Your task to perform on an android device: Do I have any events this weekend? Image 0: 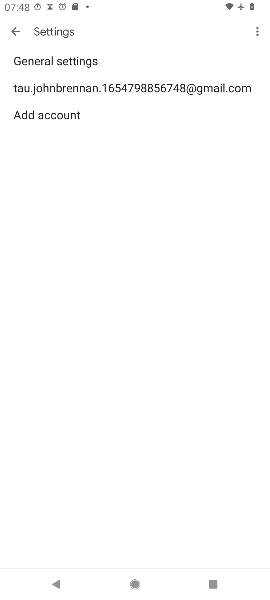
Step 0: press home button
Your task to perform on an android device: Do I have any events this weekend? Image 1: 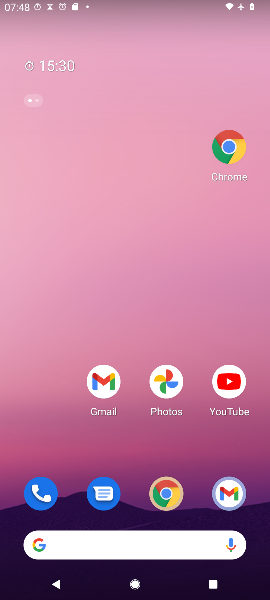
Step 1: drag from (59, 444) to (79, 86)
Your task to perform on an android device: Do I have any events this weekend? Image 2: 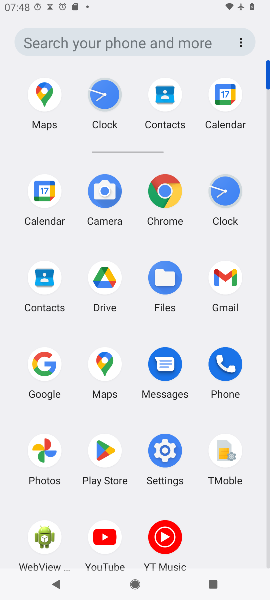
Step 2: click (52, 196)
Your task to perform on an android device: Do I have any events this weekend? Image 3: 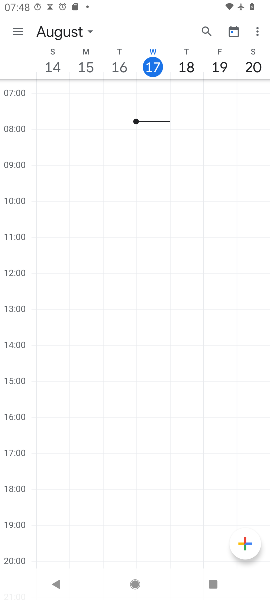
Step 3: task complete